Your task to perform on an android device: check the backup settings in the google photos Image 0: 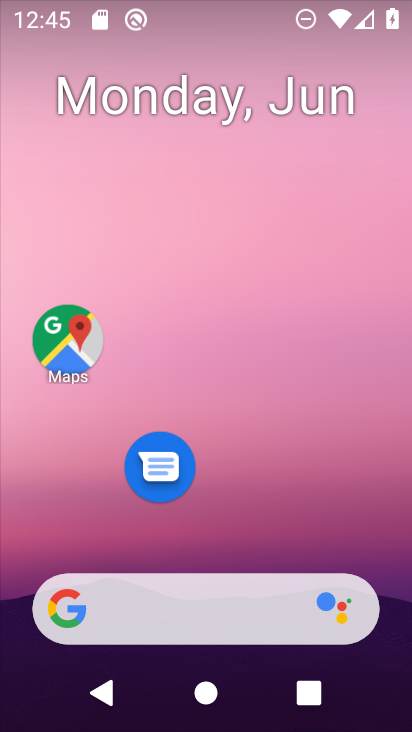
Step 0: press home button
Your task to perform on an android device: check the backup settings in the google photos Image 1: 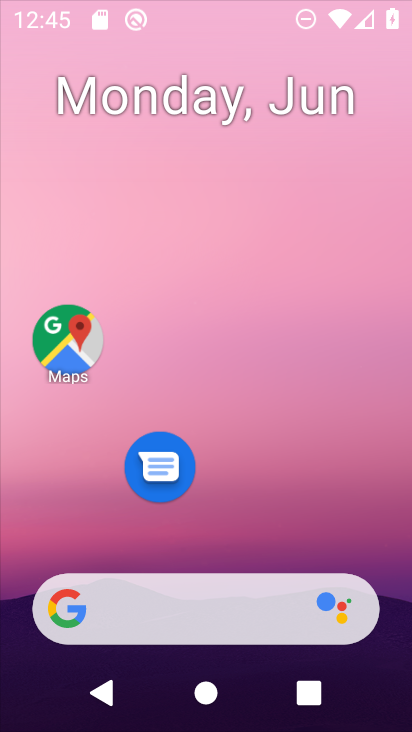
Step 1: drag from (304, 544) to (299, 54)
Your task to perform on an android device: check the backup settings in the google photos Image 2: 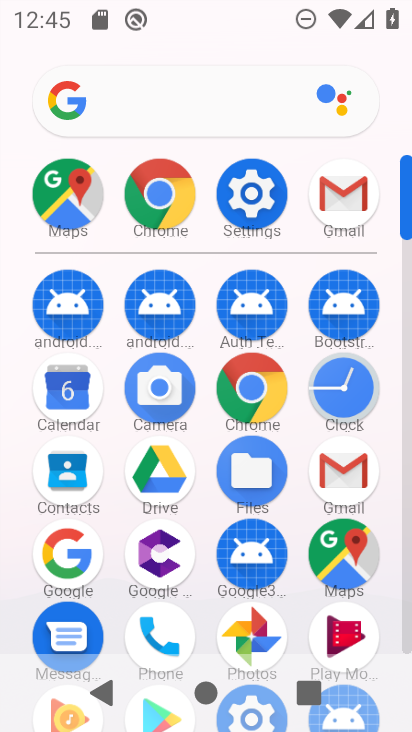
Step 2: drag from (244, 579) to (336, 191)
Your task to perform on an android device: check the backup settings in the google photos Image 3: 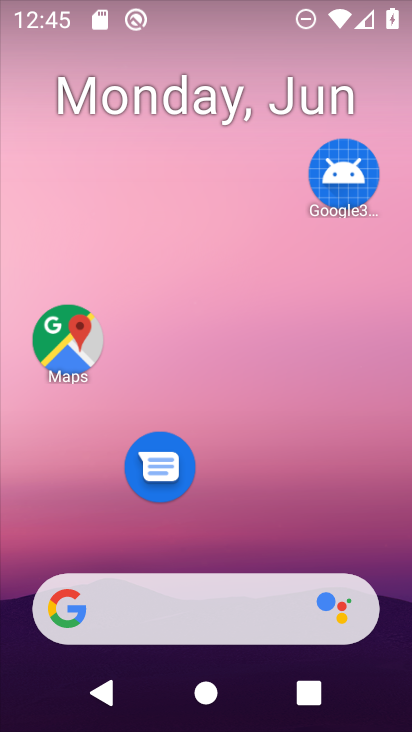
Step 3: drag from (330, 467) to (207, 2)
Your task to perform on an android device: check the backup settings in the google photos Image 4: 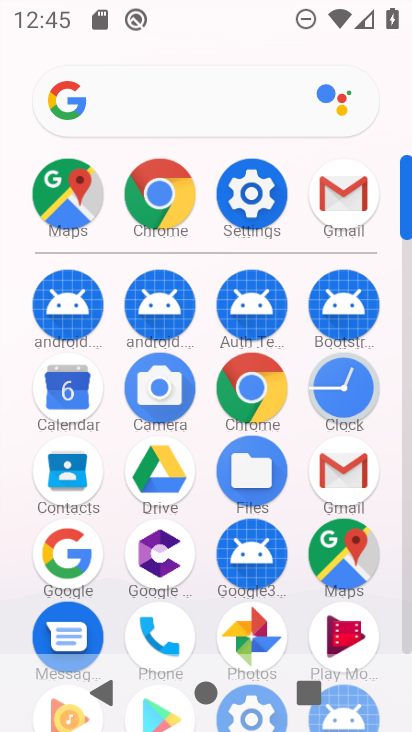
Step 4: drag from (144, 600) to (307, 229)
Your task to perform on an android device: check the backup settings in the google photos Image 5: 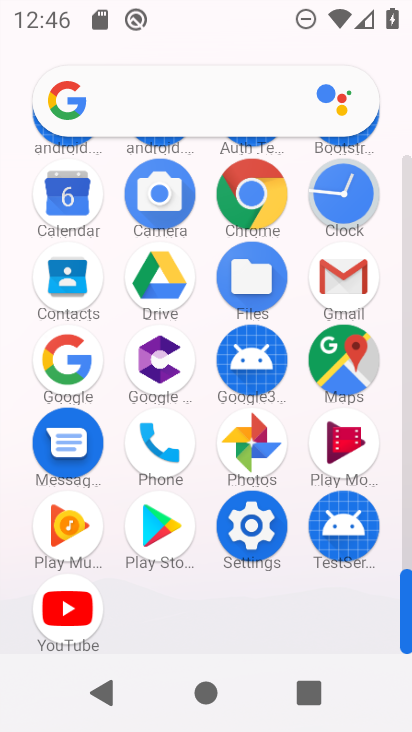
Step 5: click (254, 451)
Your task to perform on an android device: check the backup settings in the google photos Image 6: 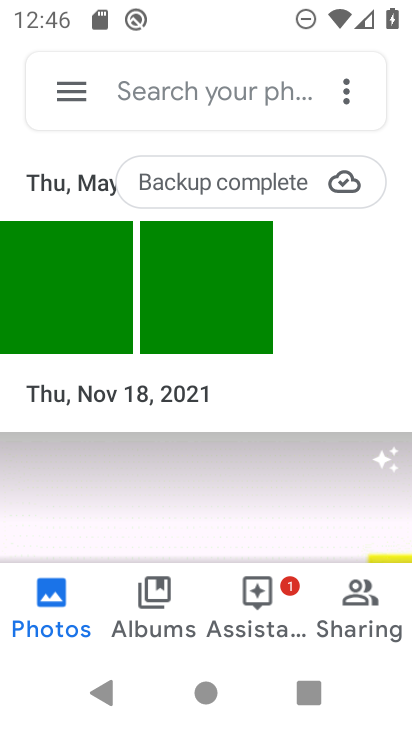
Step 6: click (62, 95)
Your task to perform on an android device: check the backup settings in the google photos Image 7: 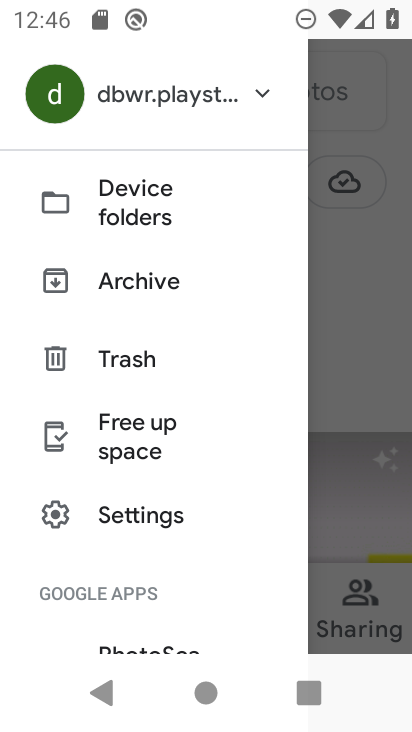
Step 7: click (147, 519)
Your task to perform on an android device: check the backup settings in the google photos Image 8: 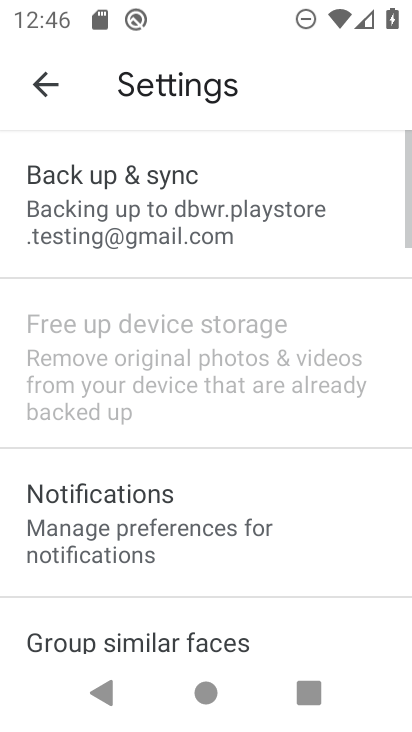
Step 8: click (133, 247)
Your task to perform on an android device: check the backup settings in the google photos Image 9: 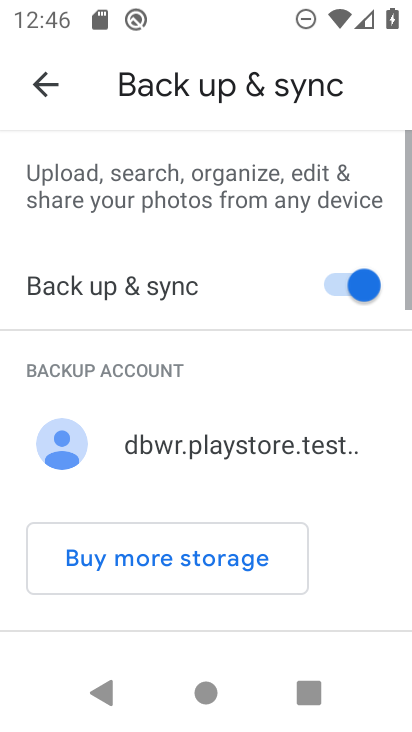
Step 9: task complete